Your task to perform on an android device: clear all cookies in the chrome app Image 0: 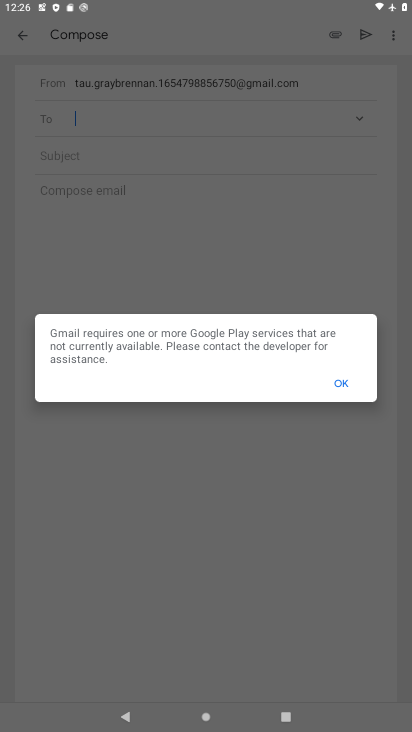
Step 0: task complete